Your task to perform on an android device: open a bookmark in the chrome app Image 0: 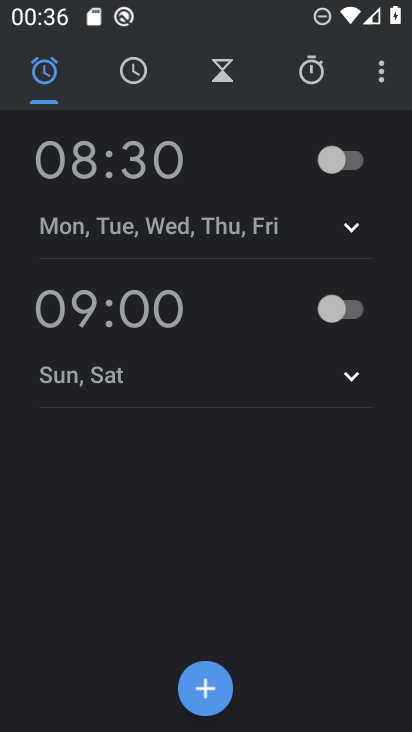
Step 0: press home button
Your task to perform on an android device: open a bookmark in the chrome app Image 1: 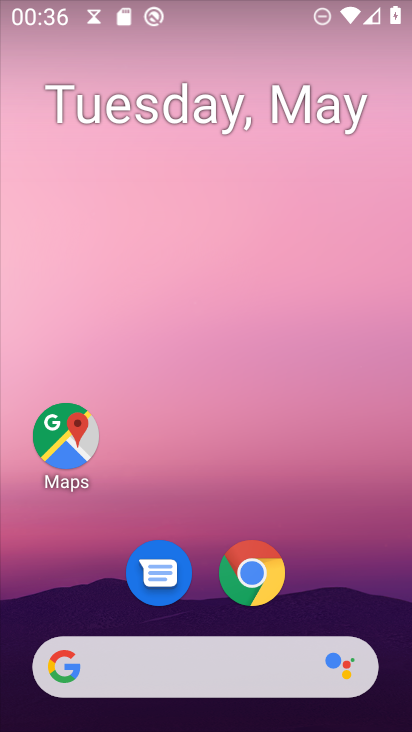
Step 1: click (250, 582)
Your task to perform on an android device: open a bookmark in the chrome app Image 2: 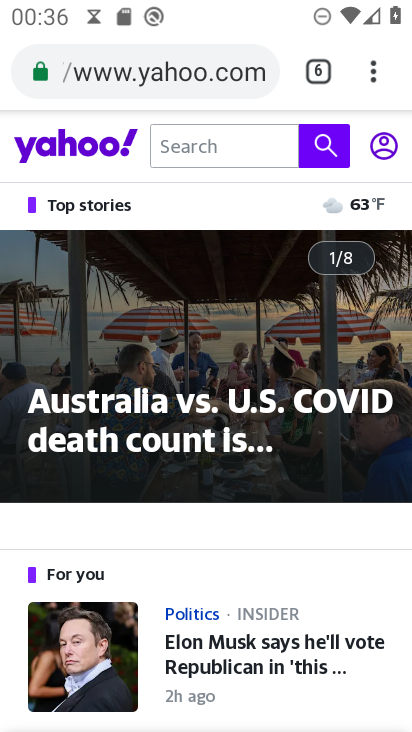
Step 2: click (368, 69)
Your task to perform on an android device: open a bookmark in the chrome app Image 3: 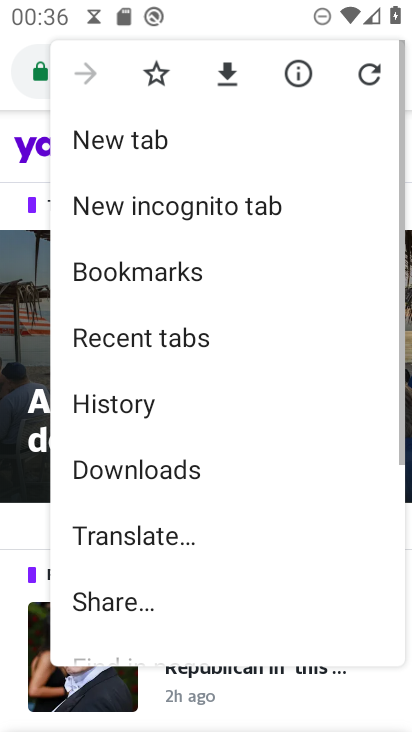
Step 3: click (155, 267)
Your task to perform on an android device: open a bookmark in the chrome app Image 4: 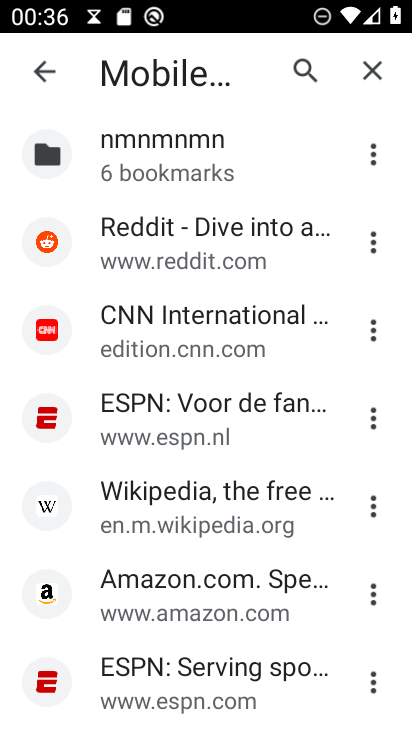
Step 4: click (250, 294)
Your task to perform on an android device: open a bookmark in the chrome app Image 5: 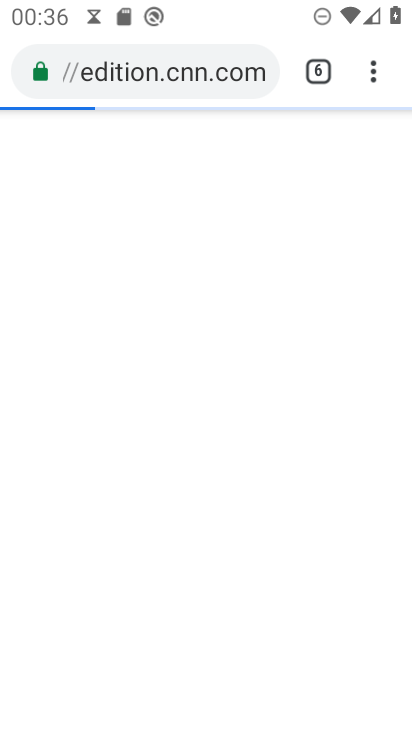
Step 5: click (282, 321)
Your task to perform on an android device: open a bookmark in the chrome app Image 6: 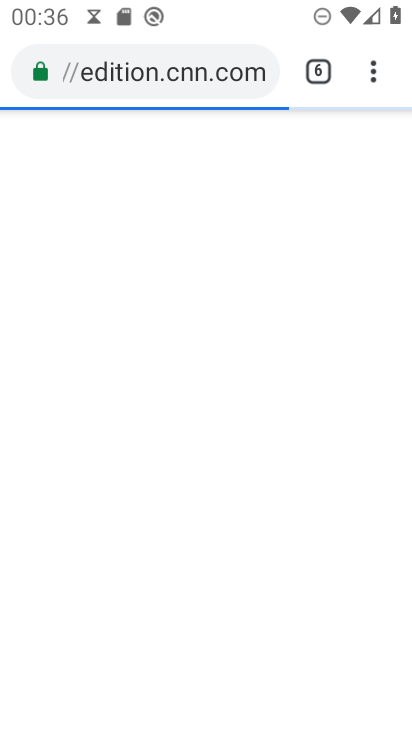
Step 6: task complete